Your task to perform on an android device: Add "energizer triple a" to the cart on costco Image 0: 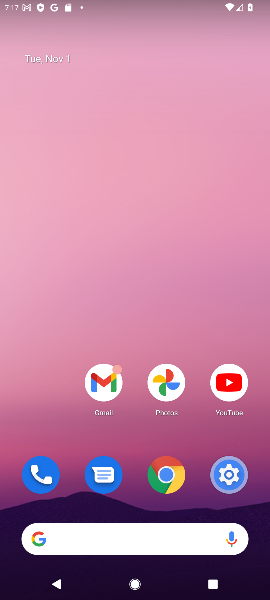
Step 0: click (117, 532)
Your task to perform on an android device: Add "energizer triple a" to the cart on costco Image 1: 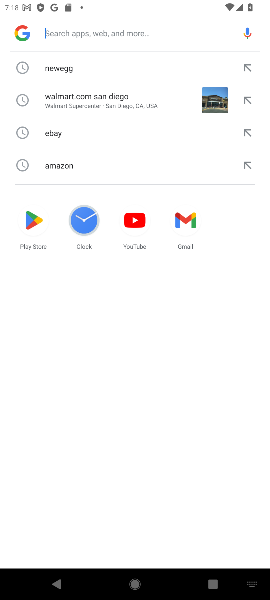
Step 1: type "costco"
Your task to perform on an android device: Add "energizer triple a" to the cart on costco Image 2: 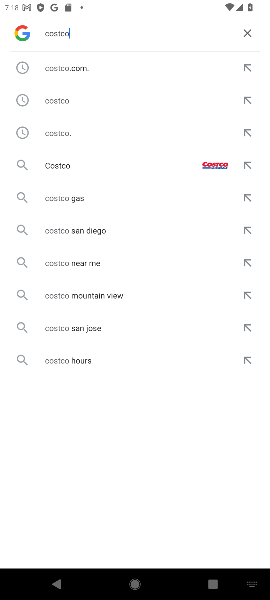
Step 2: click (133, 174)
Your task to perform on an android device: Add "energizer triple a" to the cart on costco Image 3: 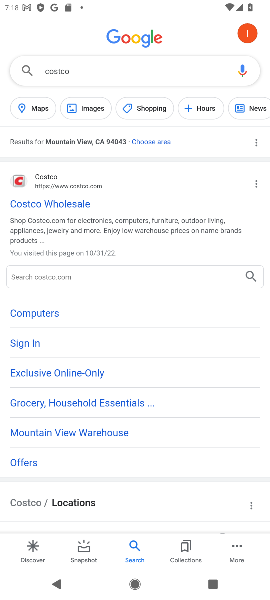
Step 3: click (48, 182)
Your task to perform on an android device: Add "energizer triple a" to the cart on costco Image 4: 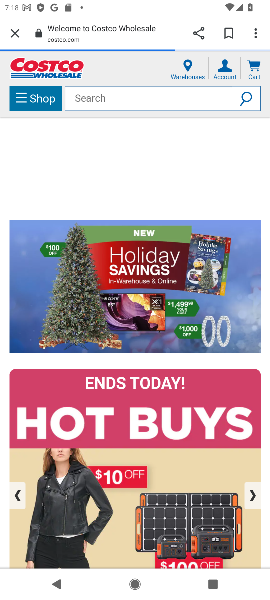
Step 4: click (93, 99)
Your task to perform on an android device: Add "energizer triple a" to the cart on costco Image 5: 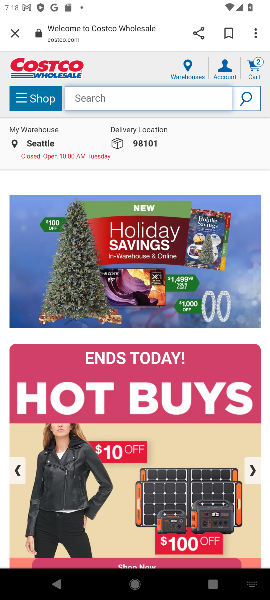
Step 5: type "energizer triple a"
Your task to perform on an android device: Add "energizer triple a" to the cart on costco Image 6: 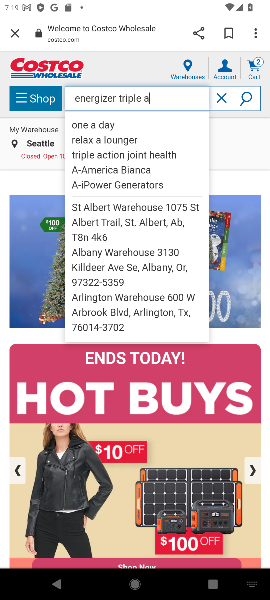
Step 6: task complete